Your task to perform on an android device: turn off location Image 0: 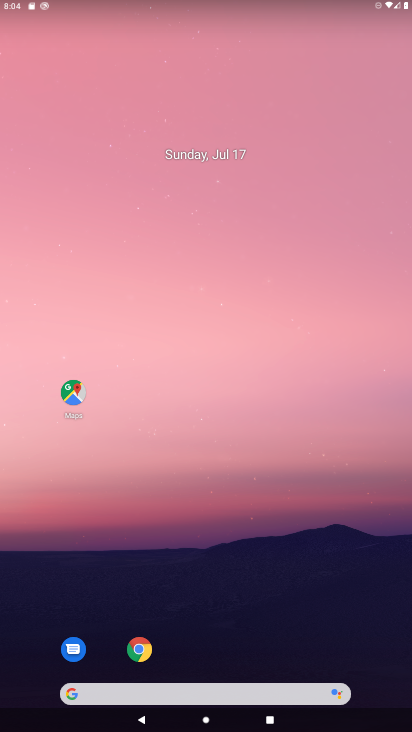
Step 0: drag from (193, 675) to (168, 2)
Your task to perform on an android device: turn off location Image 1: 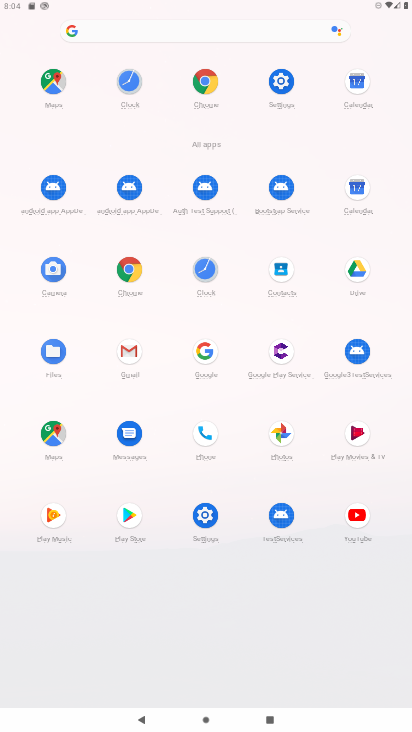
Step 1: click (288, 69)
Your task to perform on an android device: turn off location Image 2: 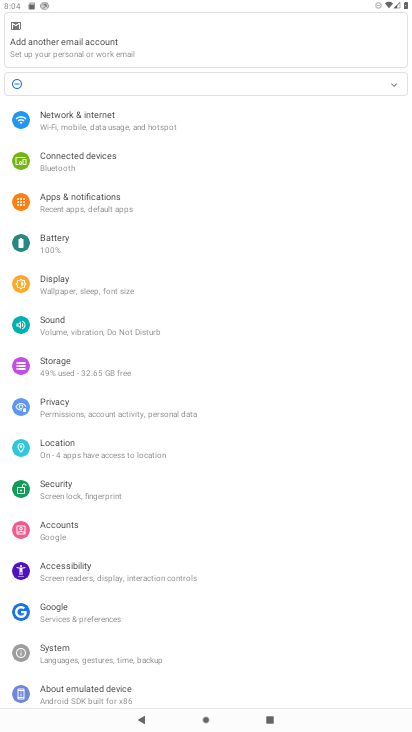
Step 2: click (73, 457)
Your task to perform on an android device: turn off location Image 3: 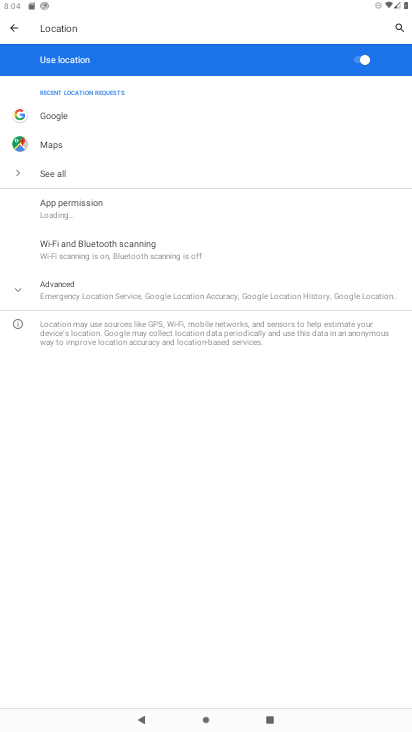
Step 3: click (359, 65)
Your task to perform on an android device: turn off location Image 4: 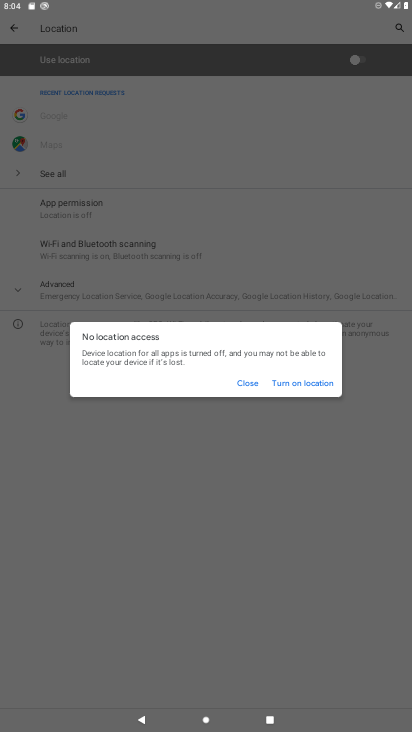
Step 4: task complete